Your task to perform on an android device: Open Yahoo.com Image 0: 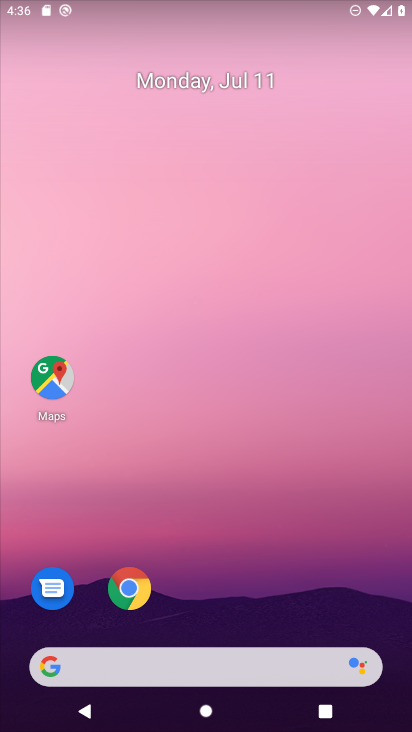
Step 0: press home button
Your task to perform on an android device: Open Yahoo.com Image 1: 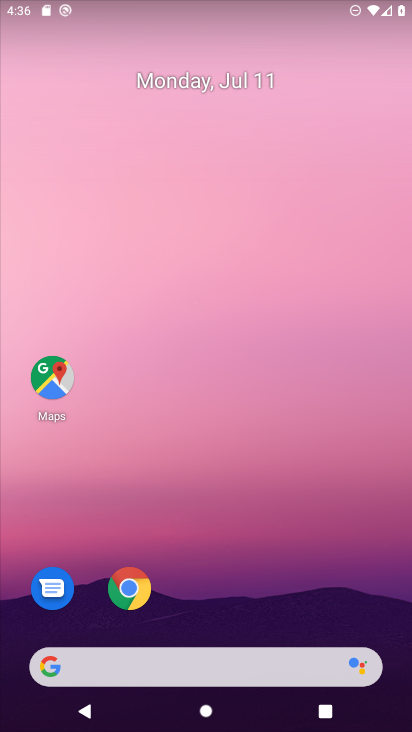
Step 1: click (57, 670)
Your task to perform on an android device: Open Yahoo.com Image 2: 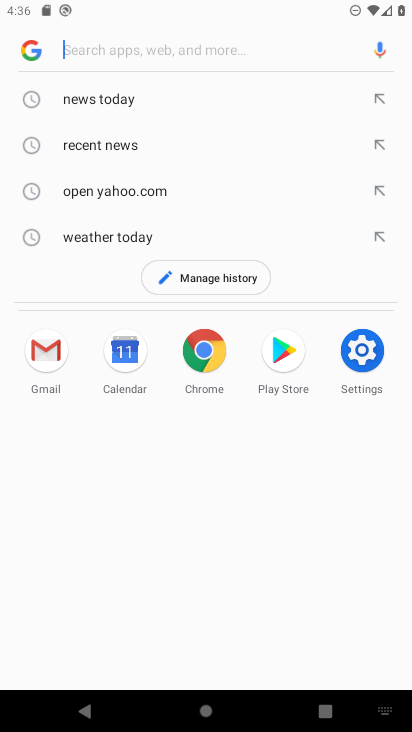
Step 2: click (129, 188)
Your task to perform on an android device: Open Yahoo.com Image 3: 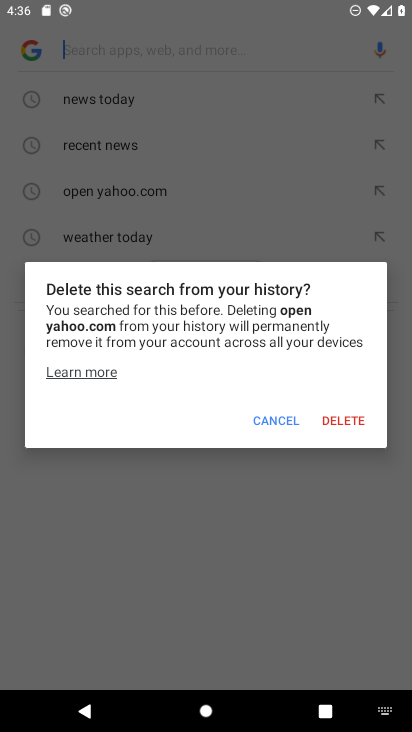
Step 3: click (285, 418)
Your task to perform on an android device: Open Yahoo.com Image 4: 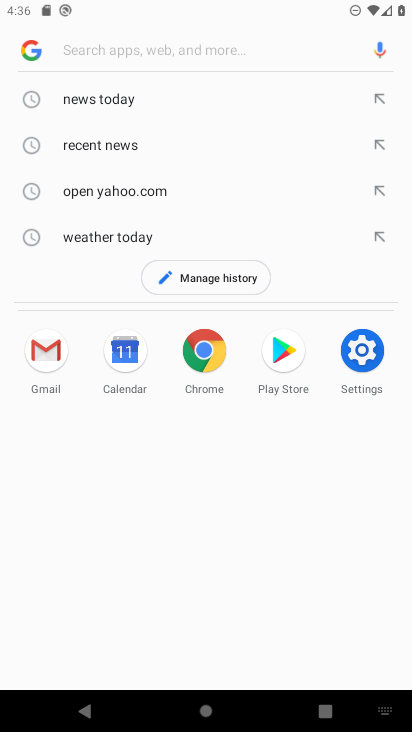
Step 4: type "Yahoo.com"
Your task to perform on an android device: Open Yahoo.com Image 5: 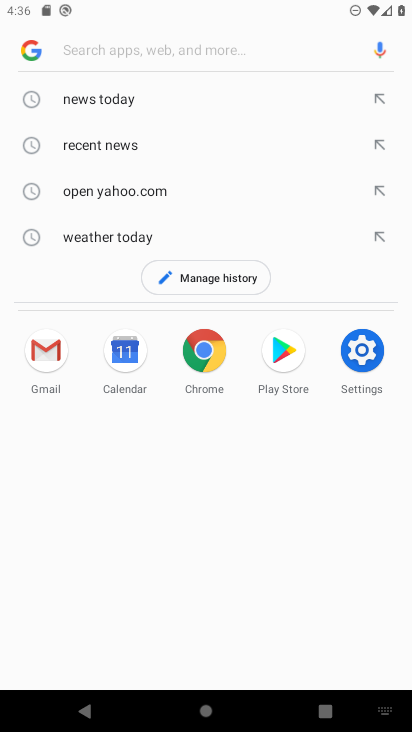
Step 5: click (183, 42)
Your task to perform on an android device: Open Yahoo.com Image 6: 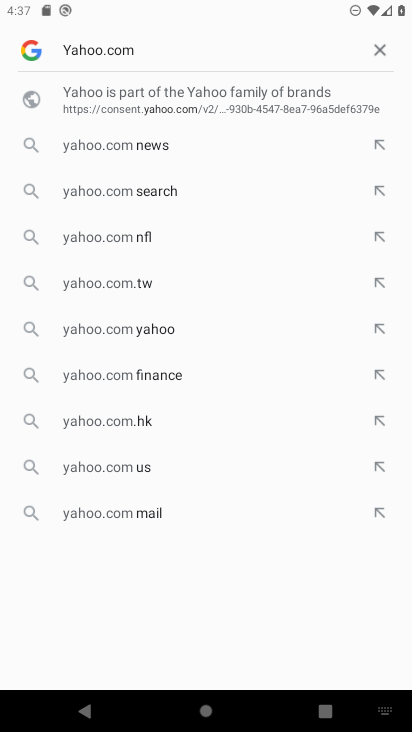
Step 6: click (134, 194)
Your task to perform on an android device: Open Yahoo.com Image 7: 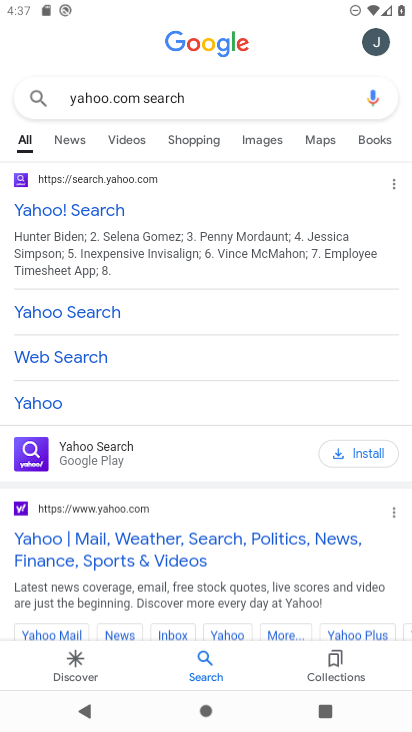
Step 7: click (68, 215)
Your task to perform on an android device: Open Yahoo.com Image 8: 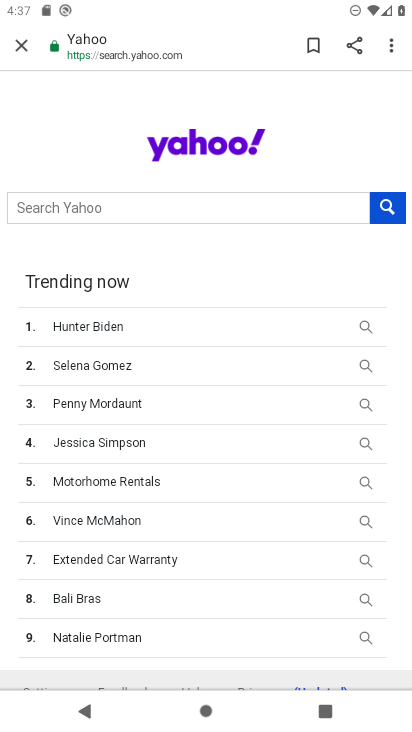
Step 8: task complete